Your task to perform on an android device: turn smart compose on in the gmail app Image 0: 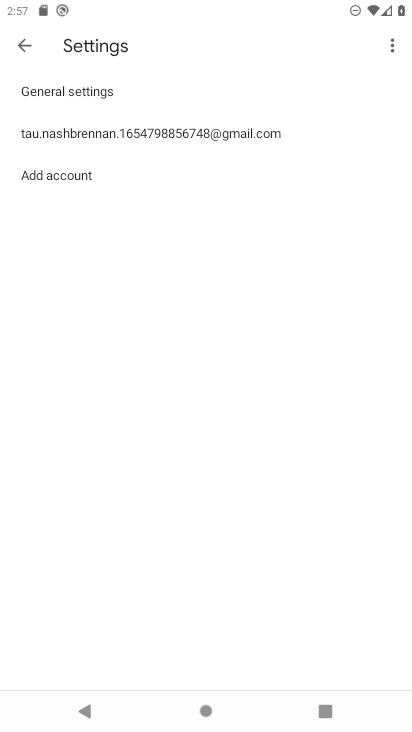
Step 0: press home button
Your task to perform on an android device: turn smart compose on in the gmail app Image 1: 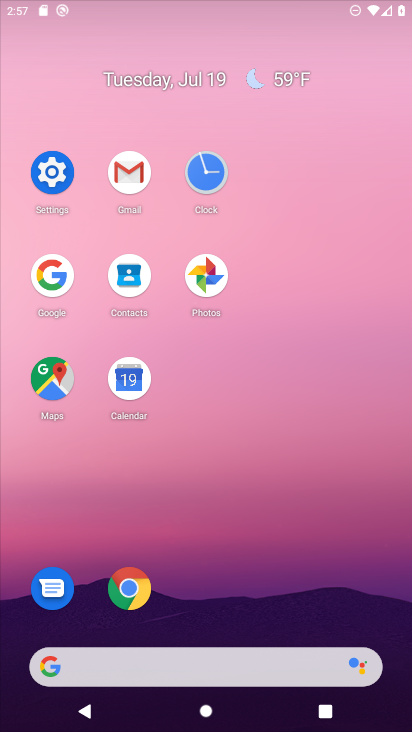
Step 1: click (368, 101)
Your task to perform on an android device: turn smart compose on in the gmail app Image 2: 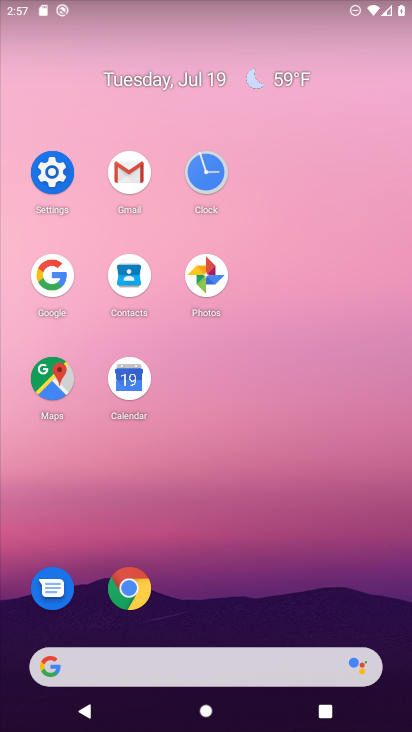
Step 2: drag from (232, 586) to (299, 142)
Your task to perform on an android device: turn smart compose on in the gmail app Image 3: 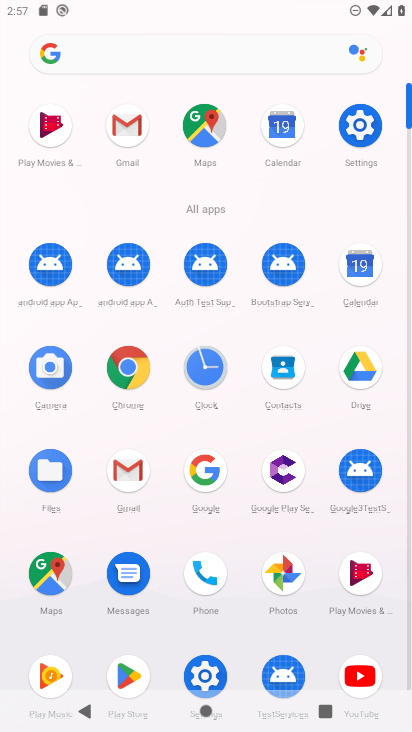
Step 3: click (132, 463)
Your task to perform on an android device: turn smart compose on in the gmail app Image 4: 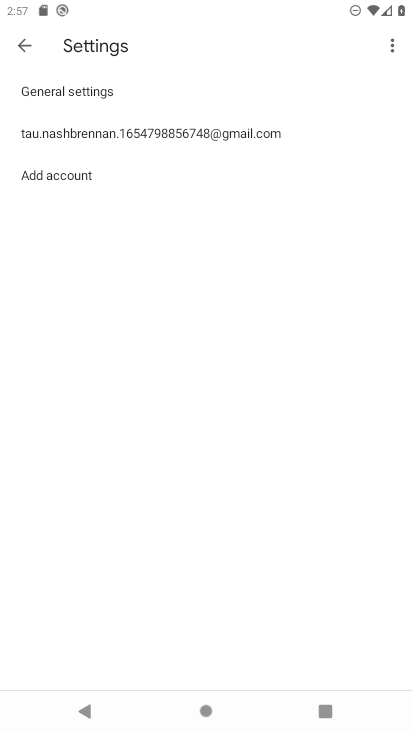
Step 4: click (74, 126)
Your task to perform on an android device: turn smart compose on in the gmail app Image 5: 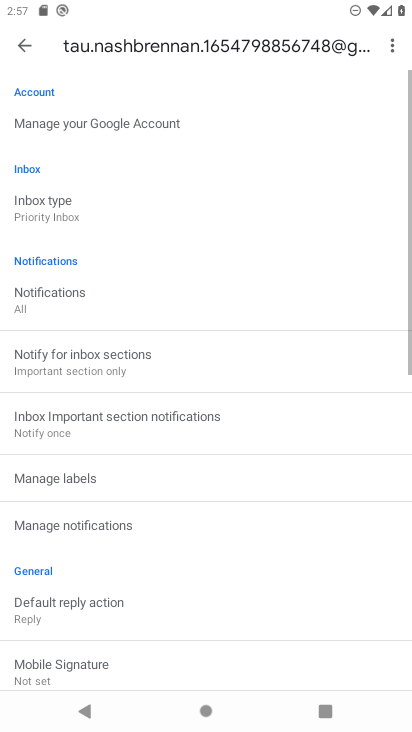
Step 5: task complete